Your task to perform on an android device: Play the last video I watched on Youtube Image 0: 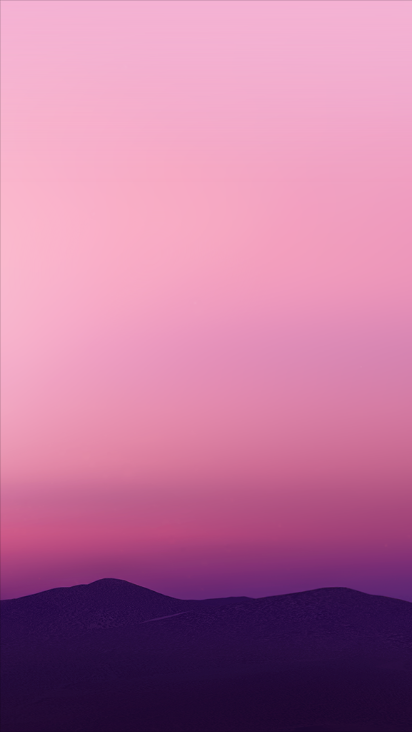
Step 0: click (213, 451)
Your task to perform on an android device: Play the last video I watched on Youtube Image 1: 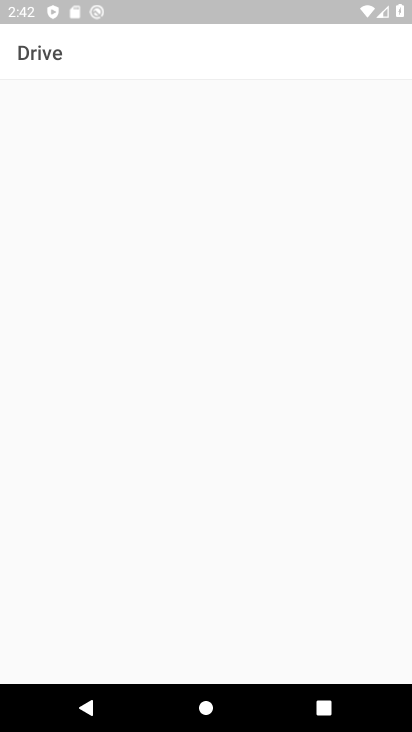
Step 1: press home button
Your task to perform on an android device: Play the last video I watched on Youtube Image 2: 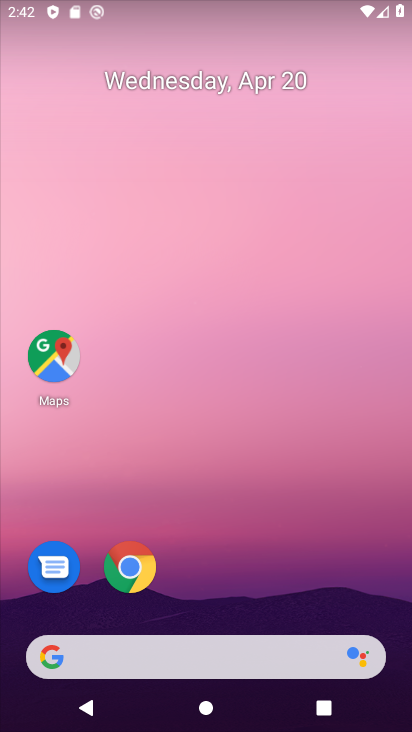
Step 2: drag from (186, 604) to (262, 156)
Your task to perform on an android device: Play the last video I watched on Youtube Image 3: 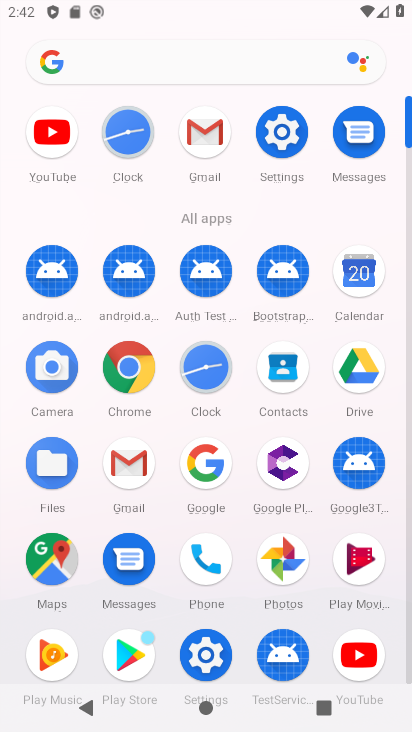
Step 3: click (50, 125)
Your task to perform on an android device: Play the last video I watched on Youtube Image 4: 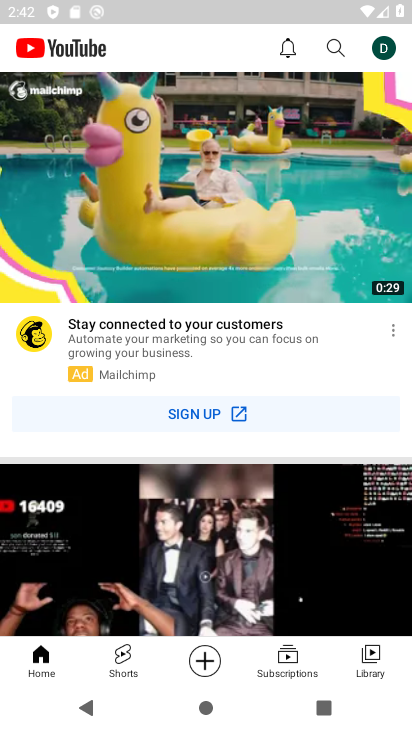
Step 4: click (375, 656)
Your task to perform on an android device: Play the last video I watched on Youtube Image 5: 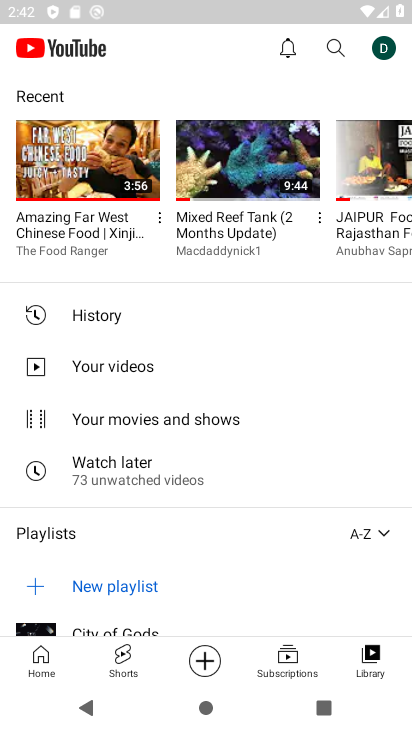
Step 5: click (95, 182)
Your task to perform on an android device: Play the last video I watched on Youtube Image 6: 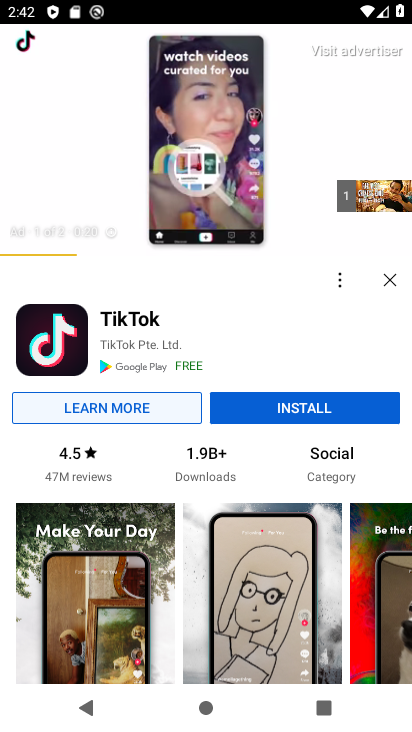
Step 6: task complete